Your task to perform on an android device: What is the news today? Image 0: 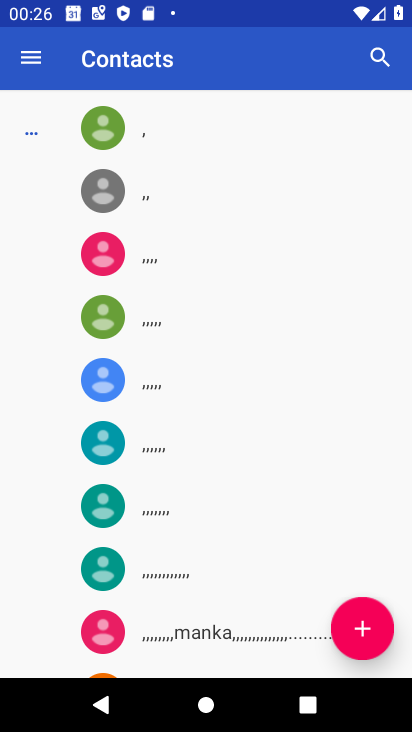
Step 0: press home button
Your task to perform on an android device: What is the news today? Image 1: 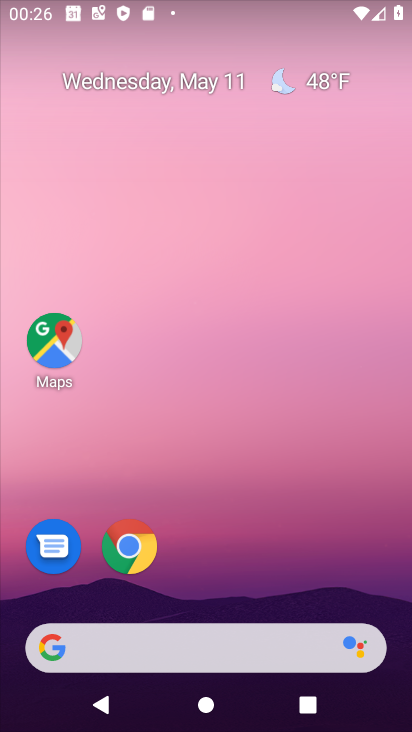
Step 1: drag from (220, 593) to (212, 359)
Your task to perform on an android device: What is the news today? Image 2: 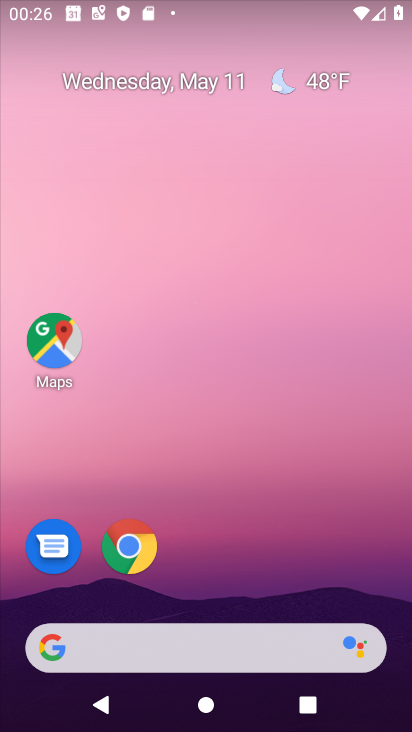
Step 2: drag from (223, 564) to (237, 128)
Your task to perform on an android device: What is the news today? Image 3: 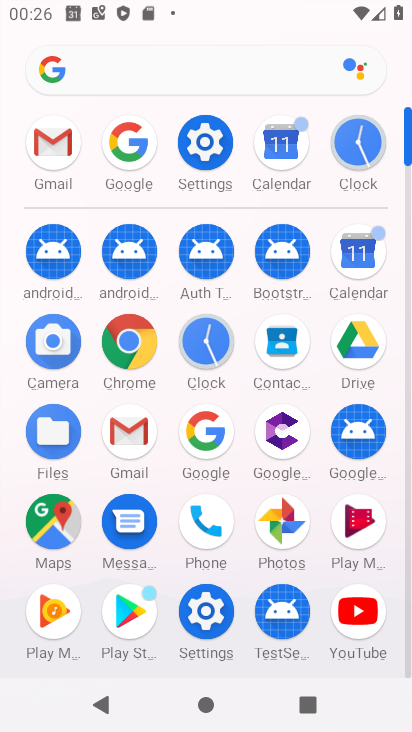
Step 3: click (141, 150)
Your task to perform on an android device: What is the news today? Image 4: 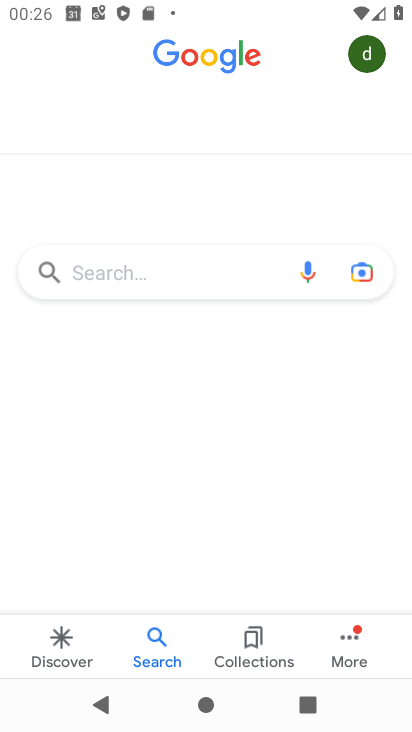
Step 4: click (135, 277)
Your task to perform on an android device: What is the news today? Image 5: 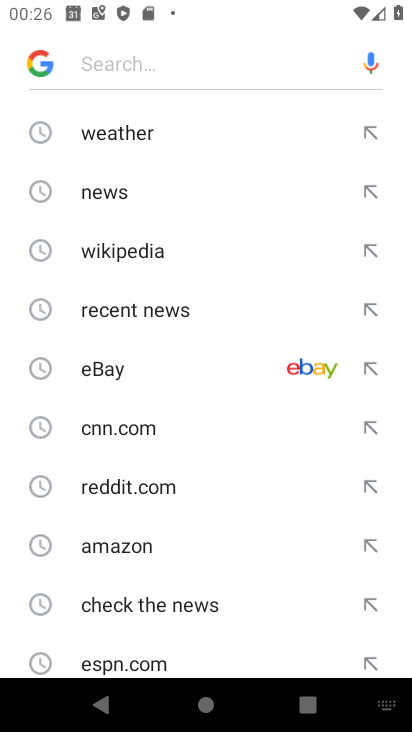
Step 5: click (138, 201)
Your task to perform on an android device: What is the news today? Image 6: 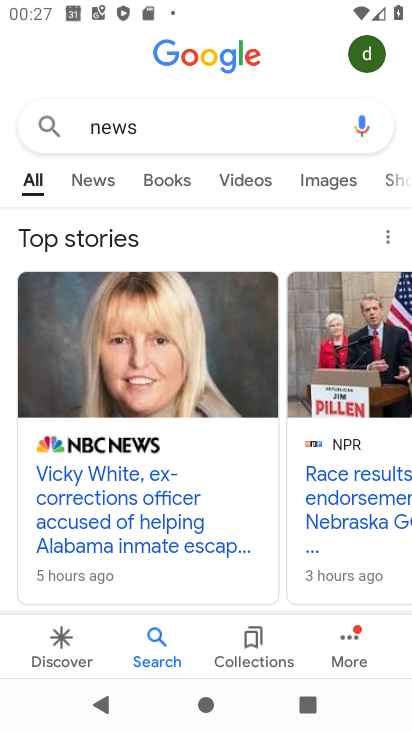
Step 6: click (97, 187)
Your task to perform on an android device: What is the news today? Image 7: 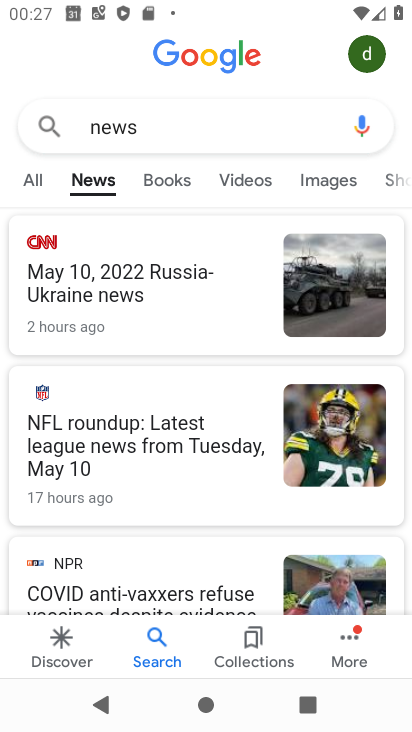
Step 7: task complete